Your task to perform on an android device: Open Google Maps and go to "Timeline" Image 0: 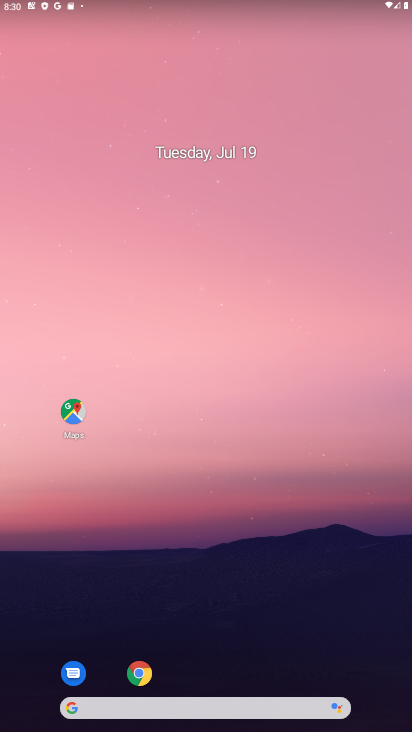
Step 0: click (76, 426)
Your task to perform on an android device: Open Google Maps and go to "Timeline" Image 1: 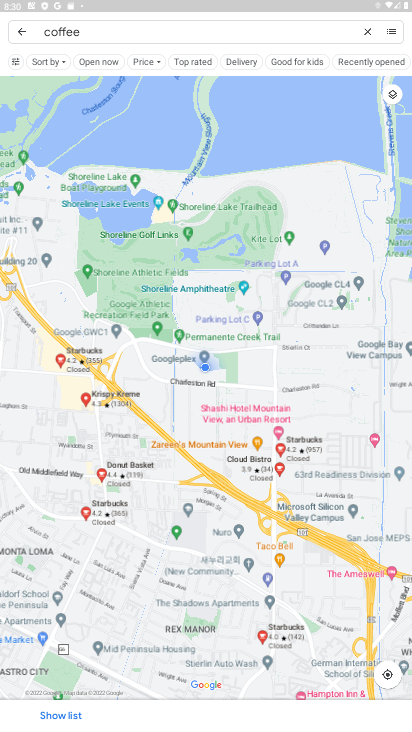
Step 1: click (27, 35)
Your task to perform on an android device: Open Google Maps and go to "Timeline" Image 2: 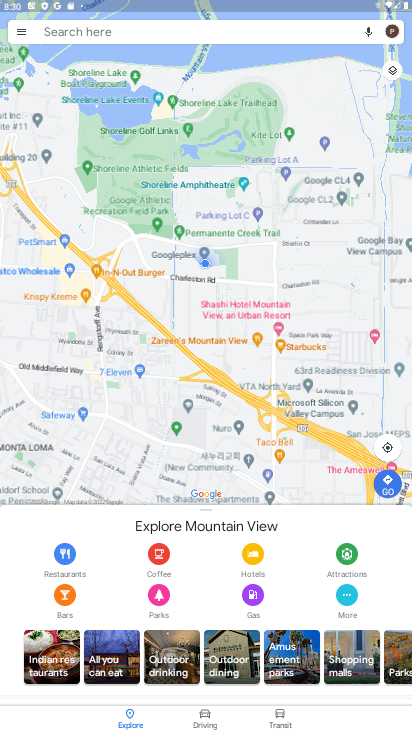
Step 2: click (18, 37)
Your task to perform on an android device: Open Google Maps and go to "Timeline" Image 3: 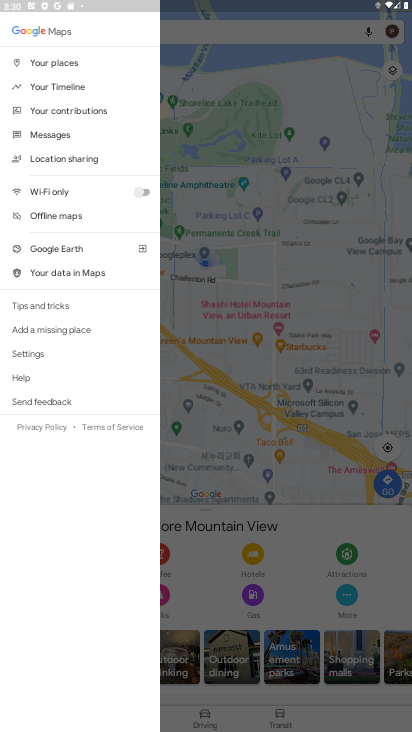
Step 3: click (59, 79)
Your task to perform on an android device: Open Google Maps and go to "Timeline" Image 4: 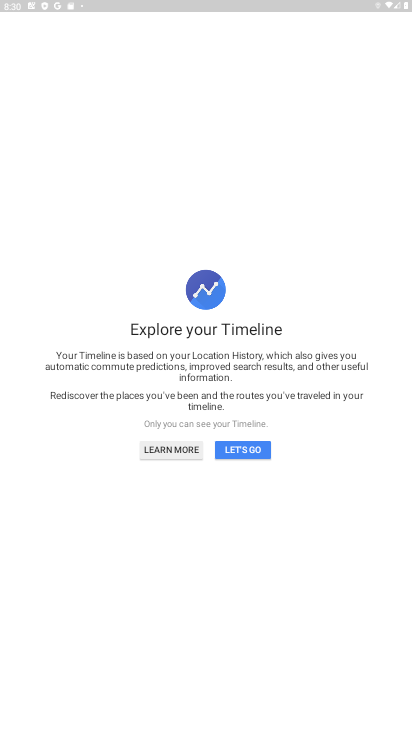
Step 4: click (247, 446)
Your task to perform on an android device: Open Google Maps and go to "Timeline" Image 5: 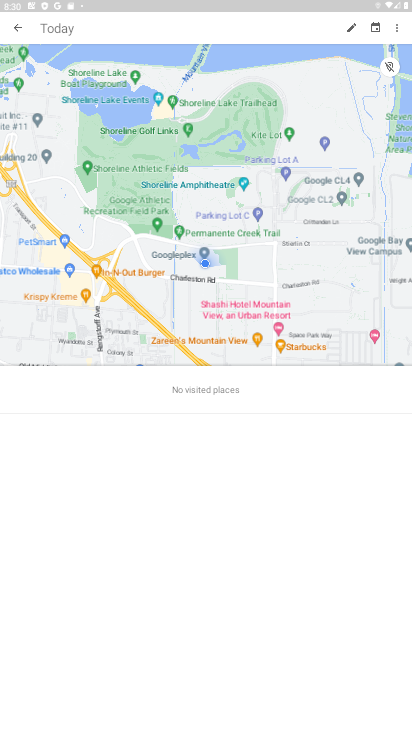
Step 5: task complete